Your task to perform on an android device: find which apps use the phone's location Image 0: 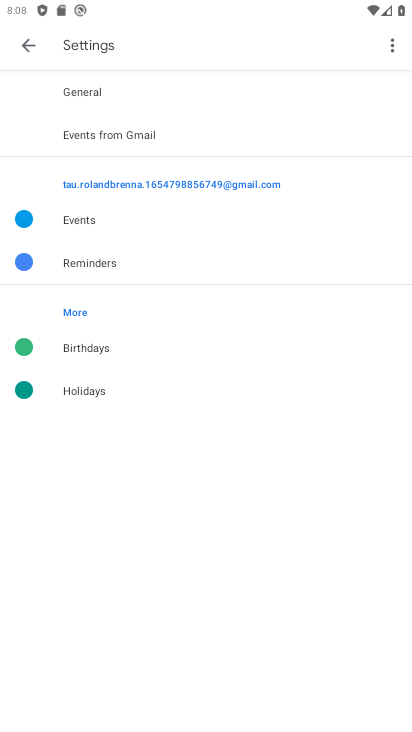
Step 0: press home button
Your task to perform on an android device: find which apps use the phone's location Image 1: 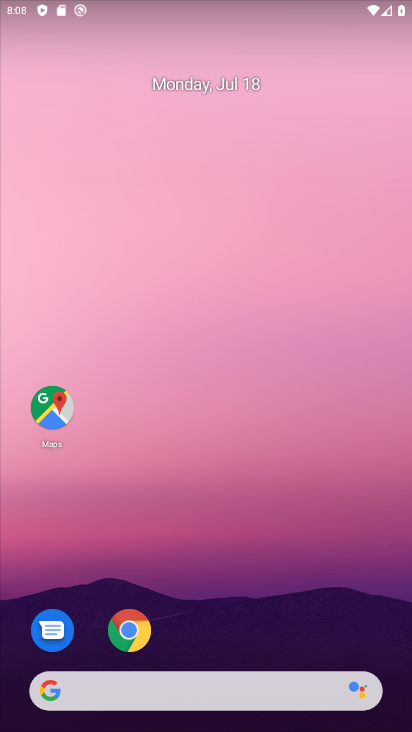
Step 1: drag from (258, 663) to (240, 224)
Your task to perform on an android device: find which apps use the phone's location Image 2: 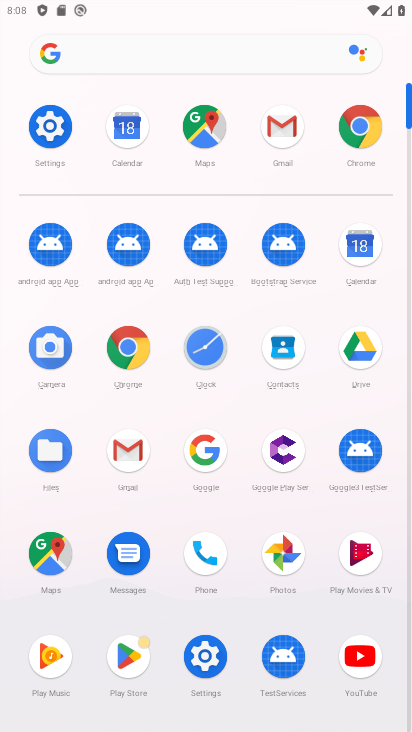
Step 2: click (56, 120)
Your task to perform on an android device: find which apps use the phone's location Image 3: 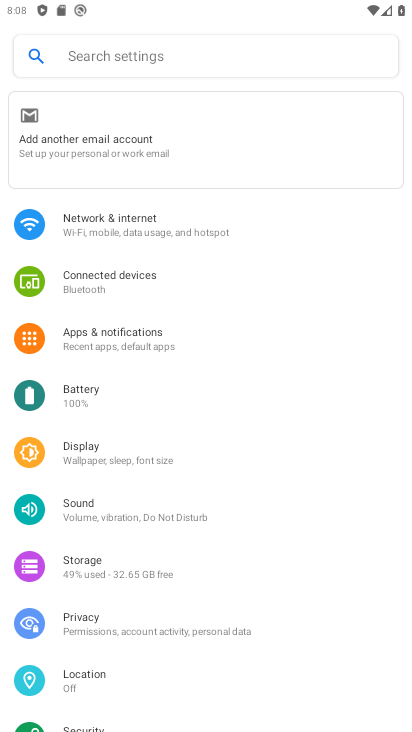
Step 3: click (101, 683)
Your task to perform on an android device: find which apps use the phone's location Image 4: 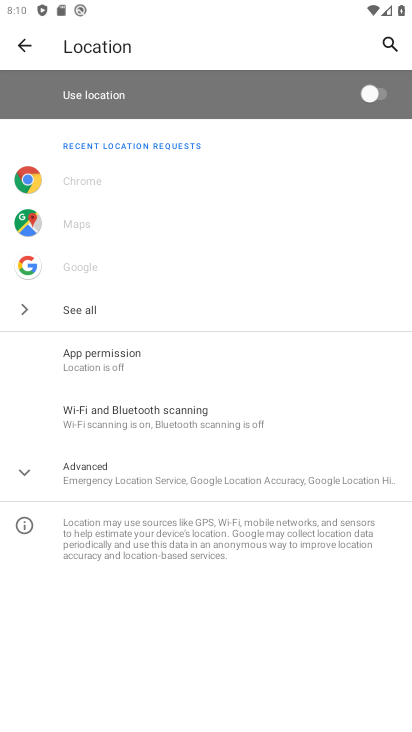
Step 4: task complete